Your task to perform on an android device: Open Android settings Image 0: 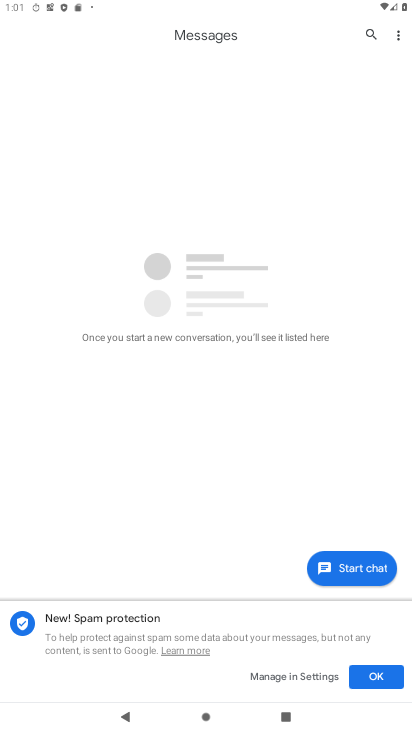
Step 0: press home button
Your task to perform on an android device: Open Android settings Image 1: 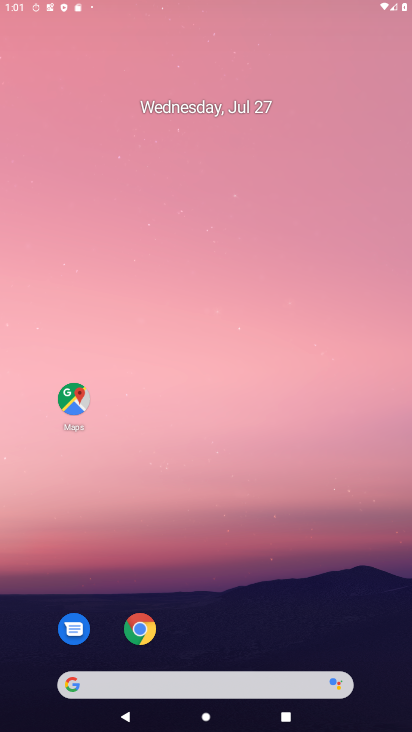
Step 1: drag from (369, 620) to (190, 81)
Your task to perform on an android device: Open Android settings Image 2: 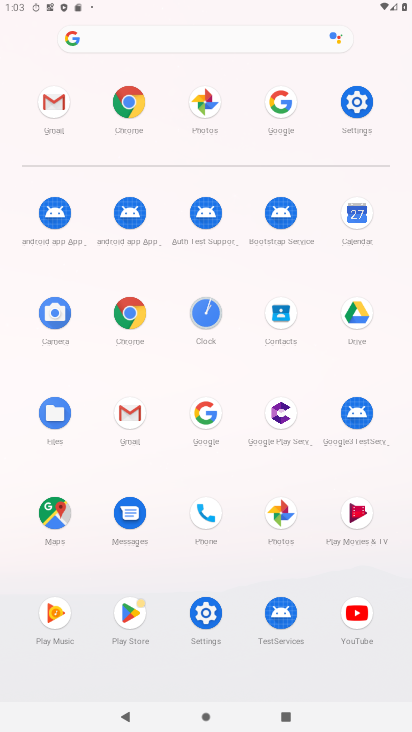
Step 2: click (207, 601)
Your task to perform on an android device: Open Android settings Image 3: 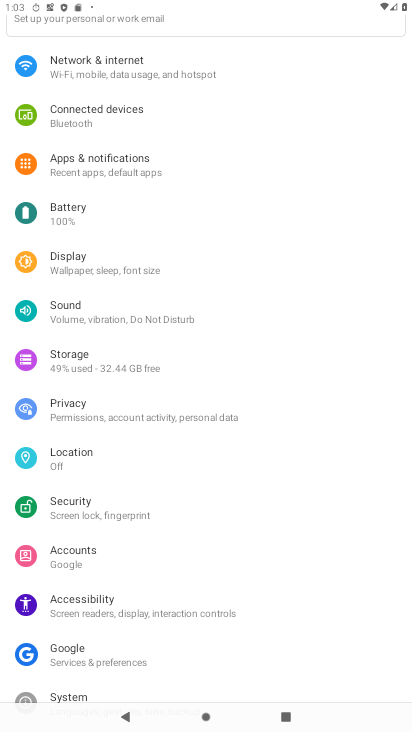
Step 3: task complete